Your task to perform on an android device: Add "razer blade" to the cart on target.com, then select checkout. Image 0: 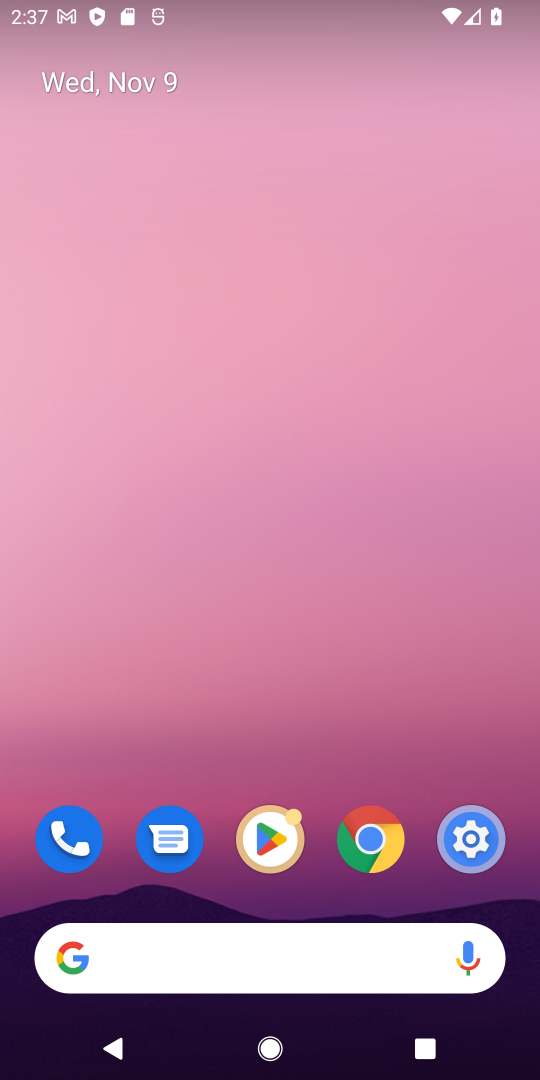
Step 0: click (246, 963)
Your task to perform on an android device: Add "razer blade" to the cart on target.com, then select checkout. Image 1: 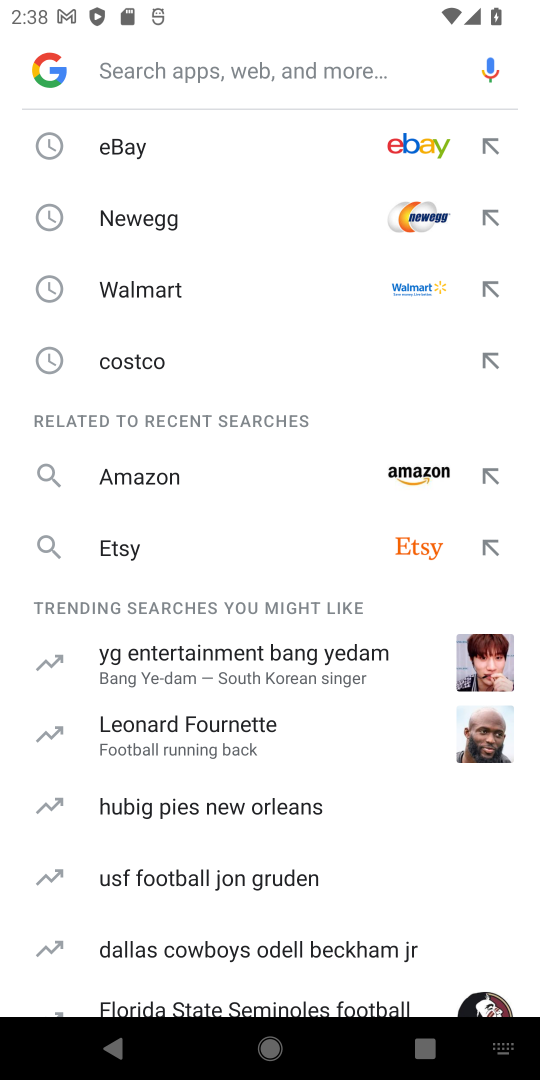
Step 1: type "target"
Your task to perform on an android device: Add "razer blade" to the cart on target.com, then select checkout. Image 2: 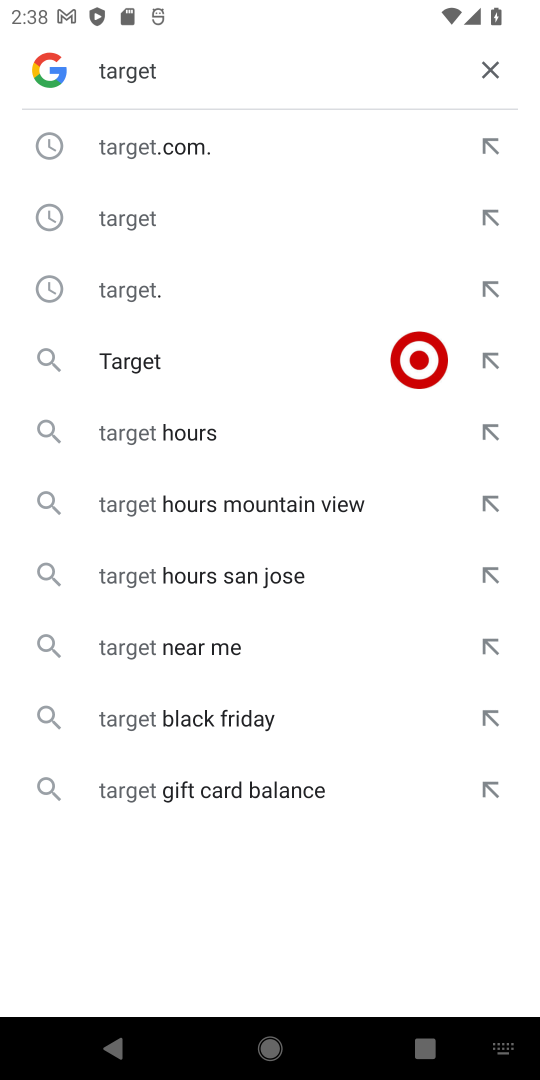
Step 2: click (157, 378)
Your task to perform on an android device: Add "razer blade" to the cart on target.com, then select checkout. Image 3: 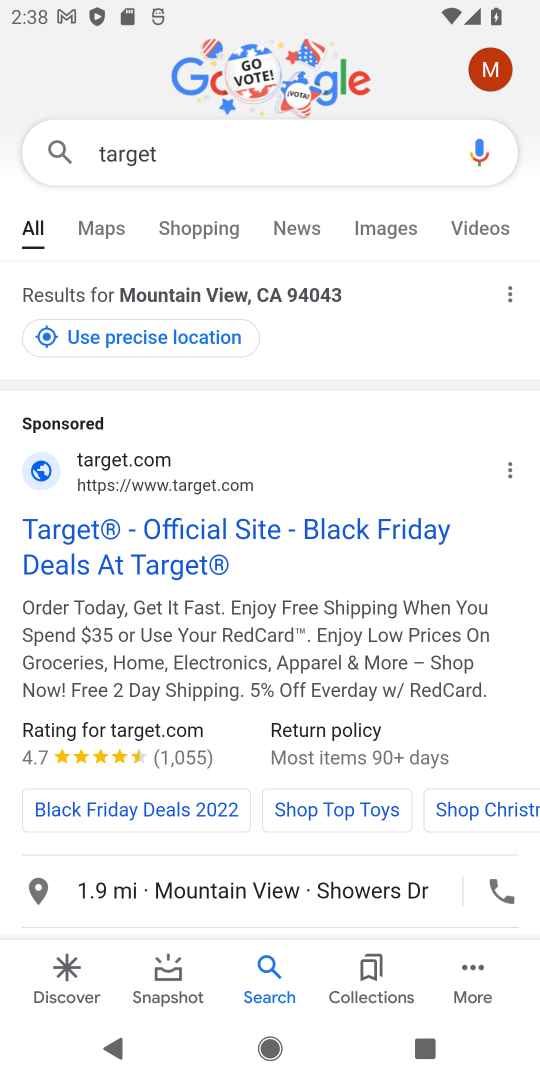
Step 3: click (109, 516)
Your task to perform on an android device: Add "razer blade" to the cart on target.com, then select checkout. Image 4: 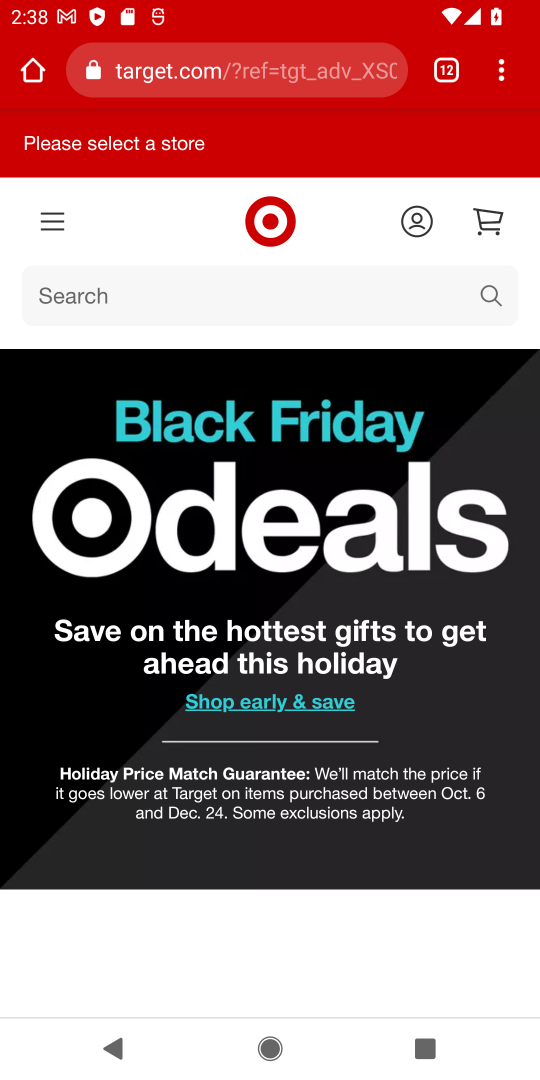
Step 4: click (331, 315)
Your task to perform on an android device: Add "razer blade" to the cart on target.com, then select checkout. Image 5: 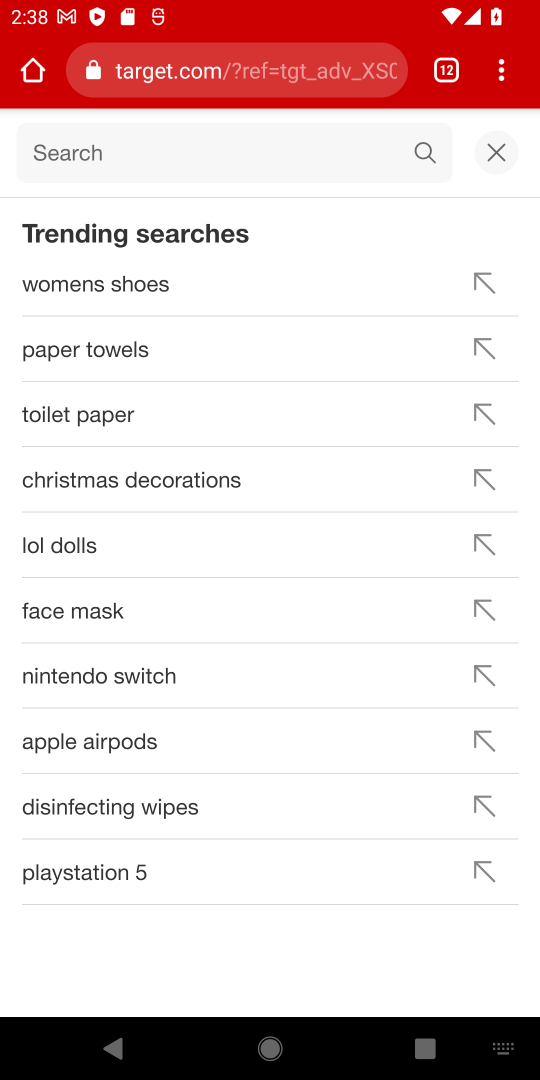
Step 5: type "razer blade"
Your task to perform on an android device: Add "razer blade" to the cart on target.com, then select checkout. Image 6: 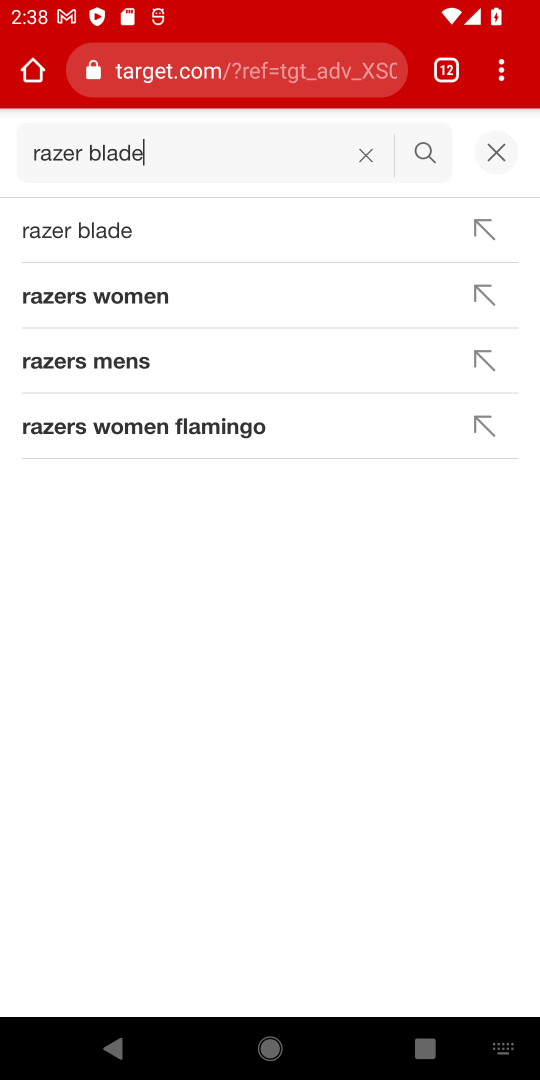
Step 6: click (227, 253)
Your task to perform on an android device: Add "razer blade" to the cart on target.com, then select checkout. Image 7: 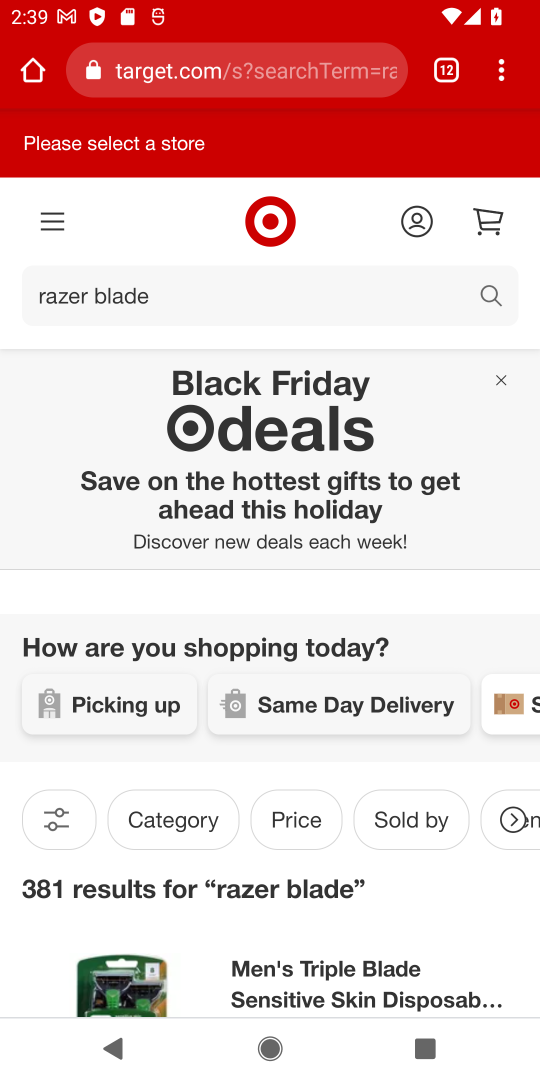
Step 7: task complete